Your task to perform on an android device: see sites visited before in the chrome app Image 0: 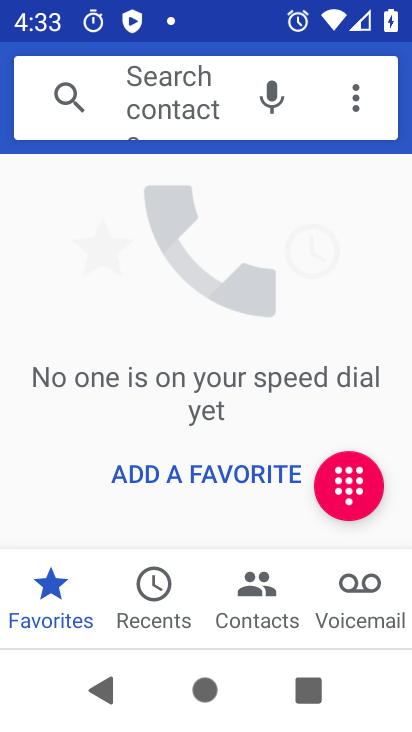
Step 0: press home button
Your task to perform on an android device: see sites visited before in the chrome app Image 1: 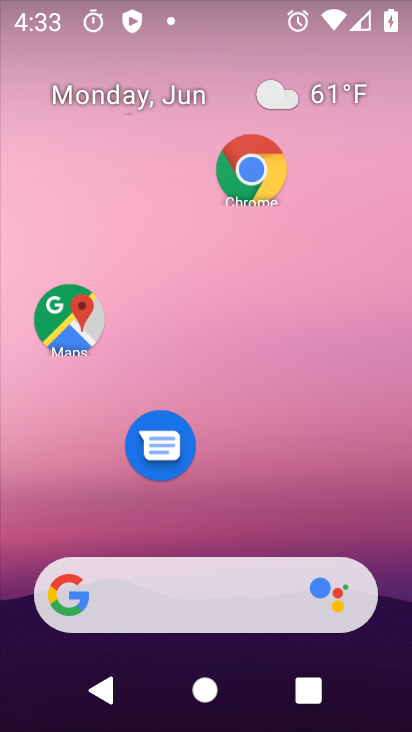
Step 1: click (251, 177)
Your task to perform on an android device: see sites visited before in the chrome app Image 2: 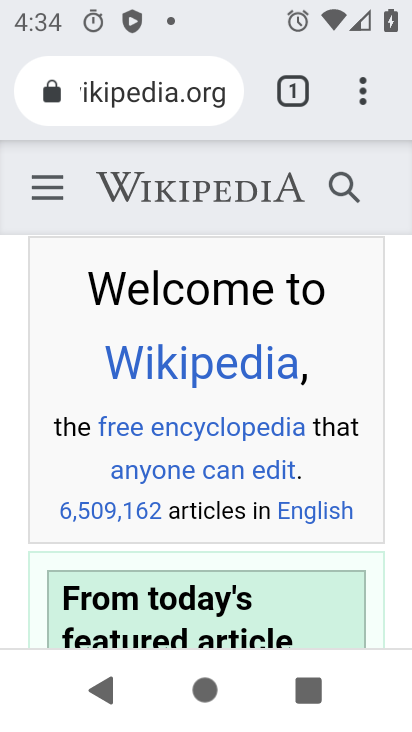
Step 2: click (360, 99)
Your task to perform on an android device: see sites visited before in the chrome app Image 3: 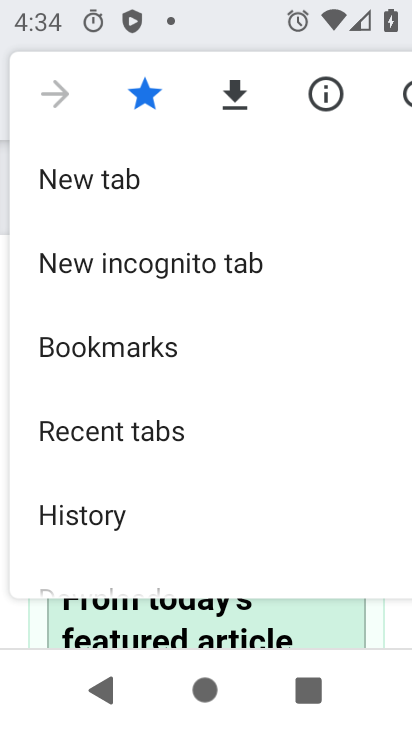
Step 3: drag from (136, 475) to (174, 219)
Your task to perform on an android device: see sites visited before in the chrome app Image 4: 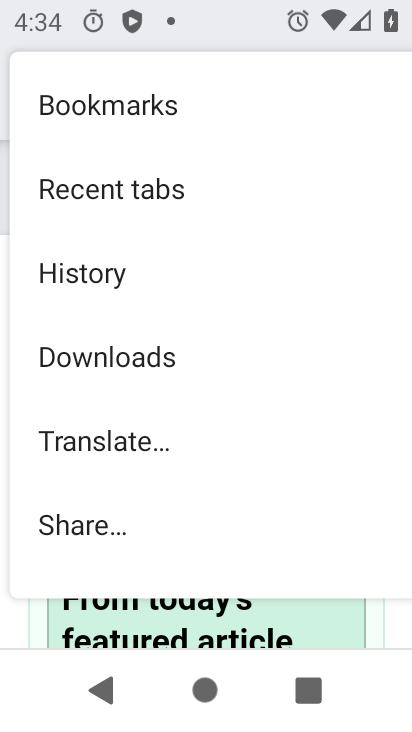
Step 4: drag from (158, 493) to (185, 302)
Your task to perform on an android device: see sites visited before in the chrome app Image 5: 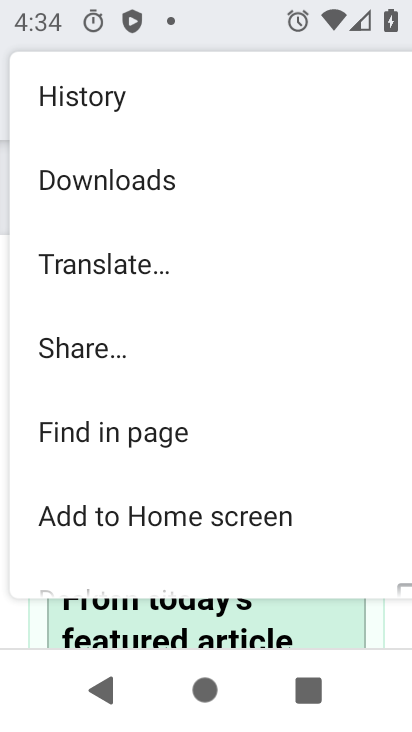
Step 5: drag from (169, 478) to (221, 249)
Your task to perform on an android device: see sites visited before in the chrome app Image 6: 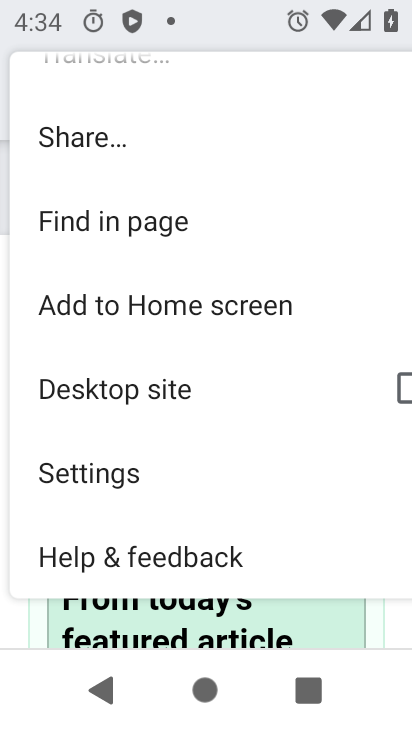
Step 6: click (135, 479)
Your task to perform on an android device: see sites visited before in the chrome app Image 7: 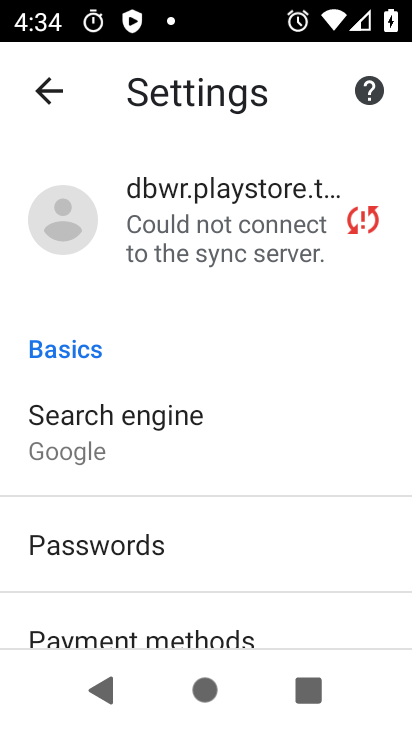
Step 7: drag from (180, 588) to (219, 419)
Your task to perform on an android device: see sites visited before in the chrome app Image 8: 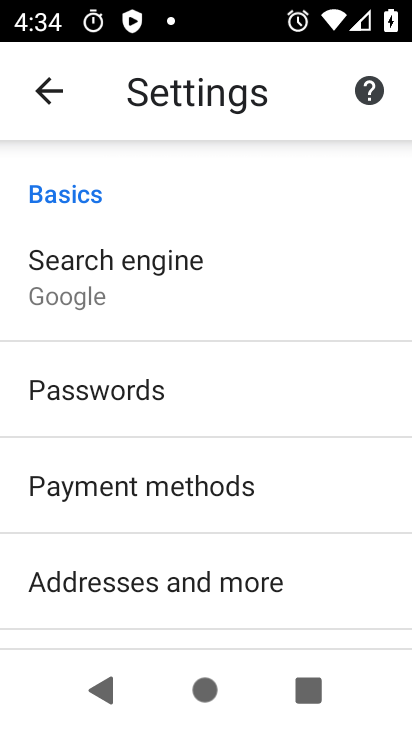
Step 8: drag from (203, 547) to (270, 296)
Your task to perform on an android device: see sites visited before in the chrome app Image 9: 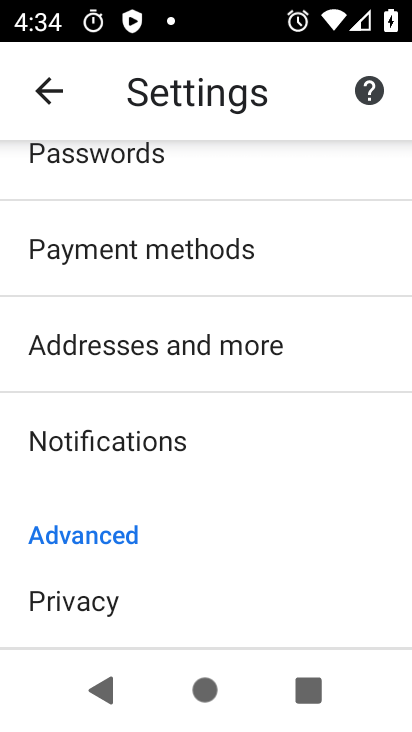
Step 9: drag from (232, 542) to (290, 346)
Your task to perform on an android device: see sites visited before in the chrome app Image 10: 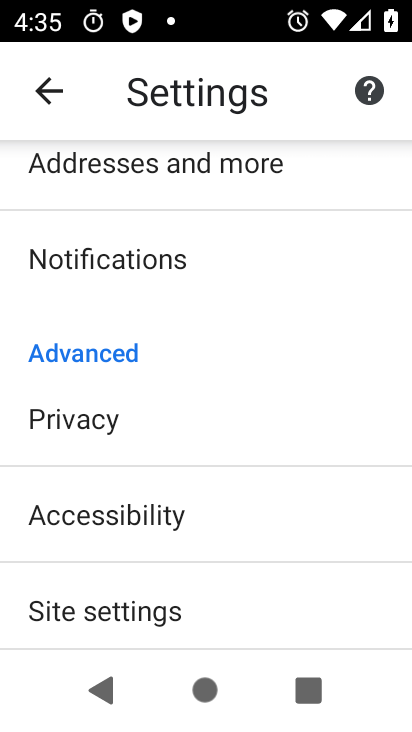
Step 10: drag from (253, 340) to (213, 580)
Your task to perform on an android device: see sites visited before in the chrome app Image 11: 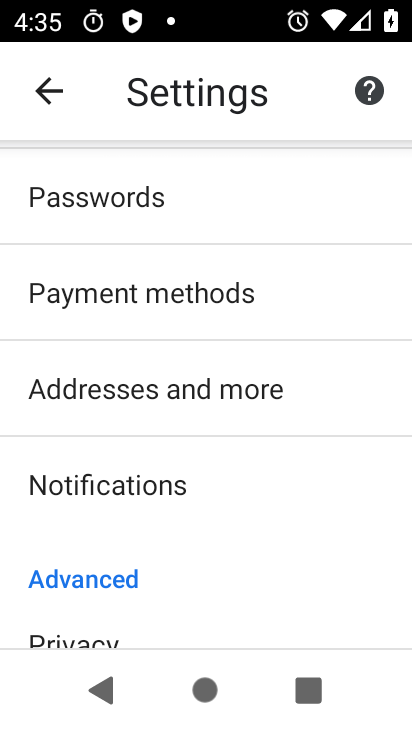
Step 11: drag from (230, 313) to (179, 550)
Your task to perform on an android device: see sites visited before in the chrome app Image 12: 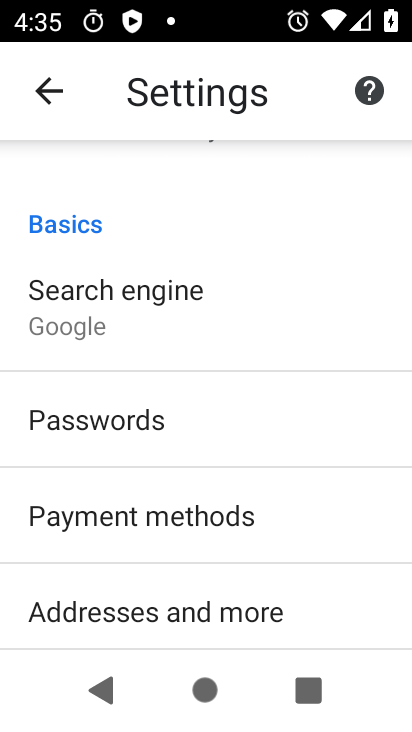
Step 12: drag from (217, 365) to (180, 664)
Your task to perform on an android device: see sites visited before in the chrome app Image 13: 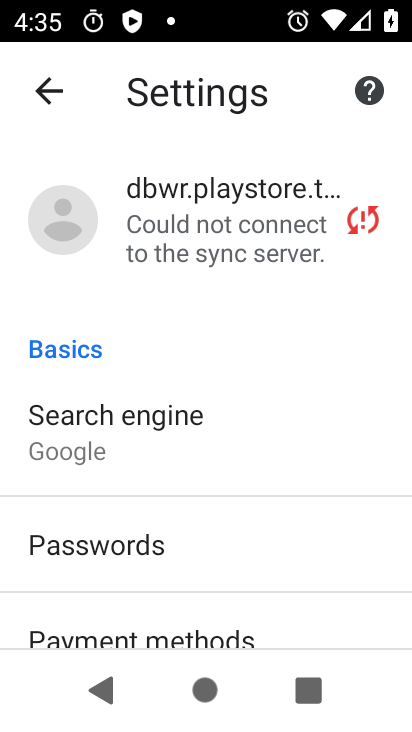
Step 13: drag from (226, 609) to (303, 370)
Your task to perform on an android device: see sites visited before in the chrome app Image 14: 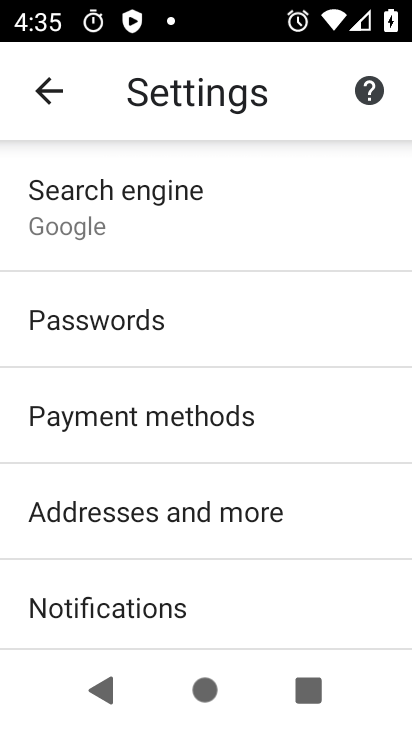
Step 14: drag from (249, 592) to (288, 321)
Your task to perform on an android device: see sites visited before in the chrome app Image 15: 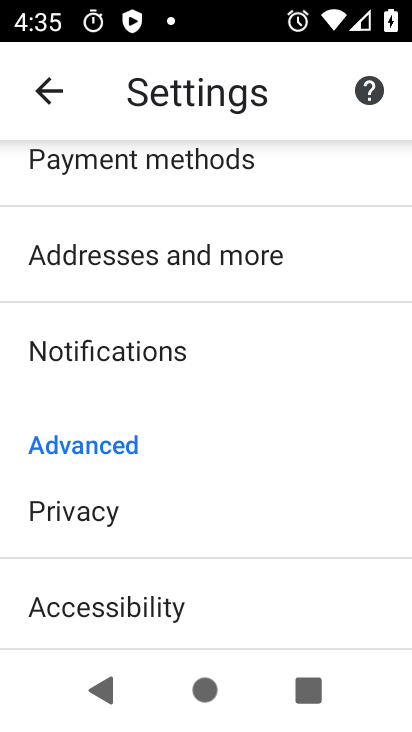
Step 15: drag from (235, 484) to (248, 249)
Your task to perform on an android device: see sites visited before in the chrome app Image 16: 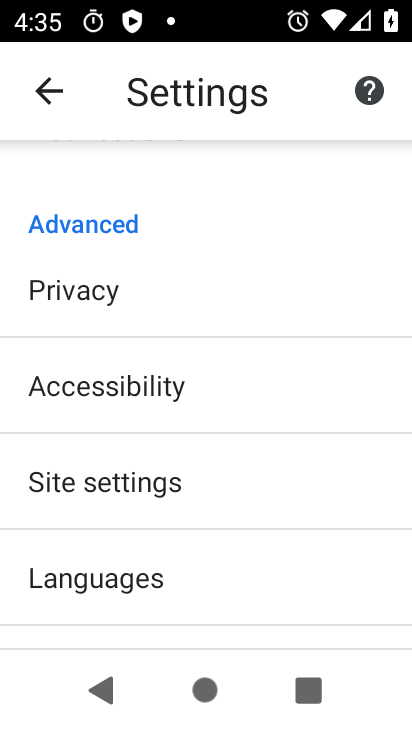
Step 16: drag from (199, 531) to (241, 300)
Your task to perform on an android device: see sites visited before in the chrome app Image 17: 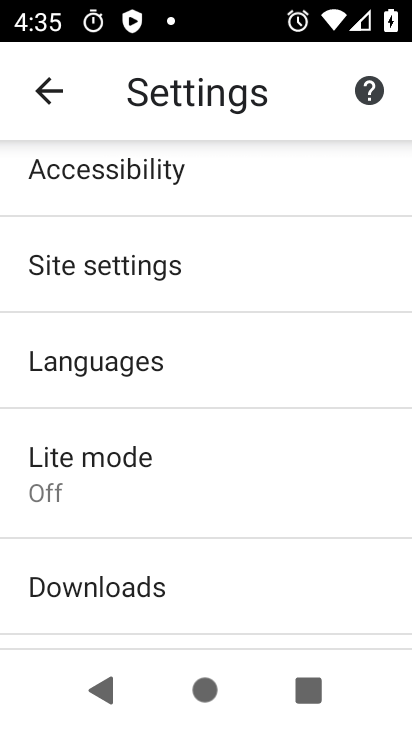
Step 17: drag from (236, 544) to (258, 232)
Your task to perform on an android device: see sites visited before in the chrome app Image 18: 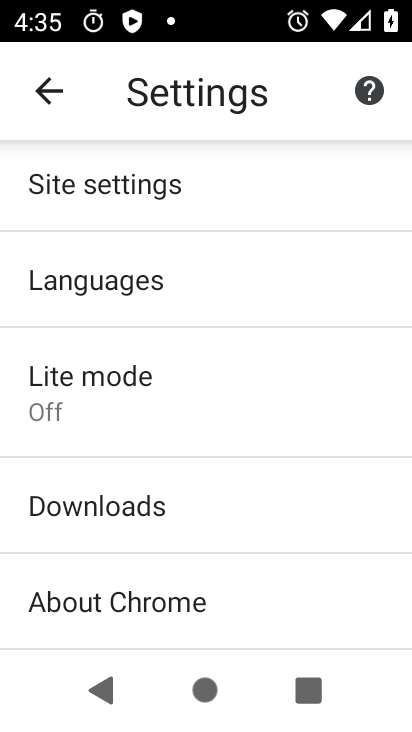
Step 18: press back button
Your task to perform on an android device: see sites visited before in the chrome app Image 19: 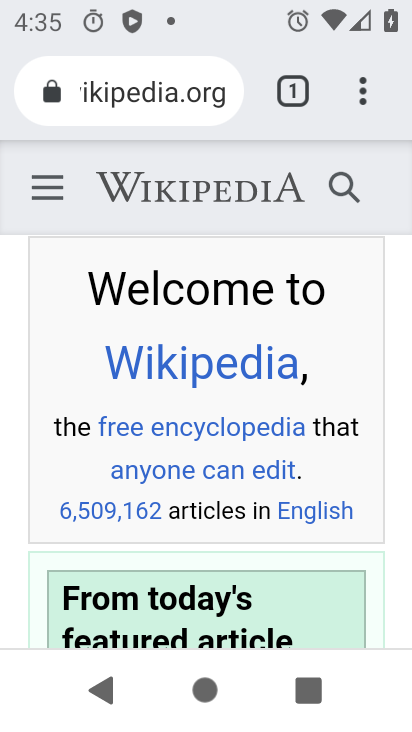
Step 19: click (362, 95)
Your task to perform on an android device: see sites visited before in the chrome app Image 20: 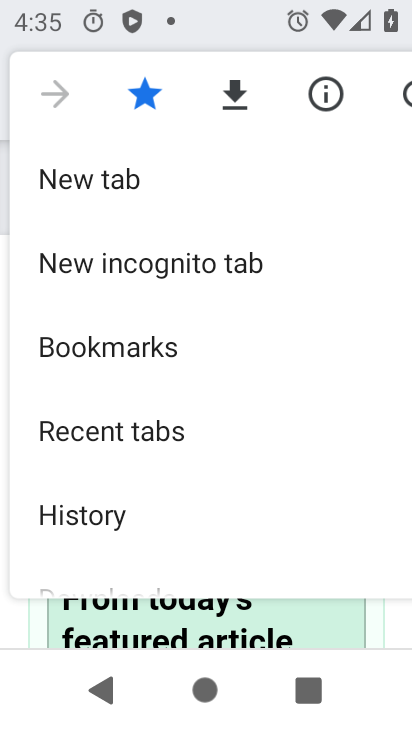
Step 20: click (111, 517)
Your task to perform on an android device: see sites visited before in the chrome app Image 21: 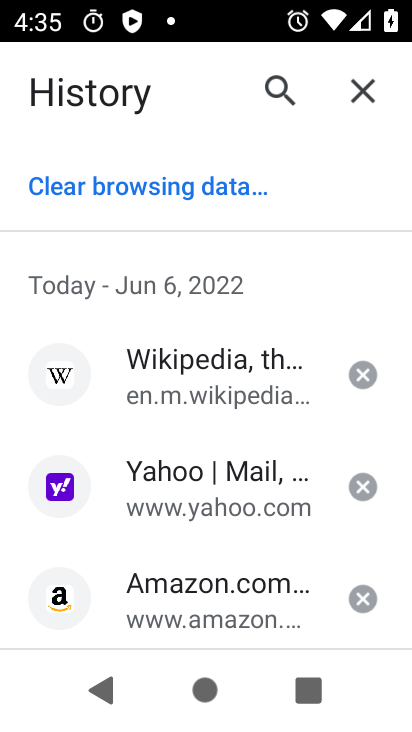
Step 21: task complete